Your task to perform on an android device: turn off location history Image 0: 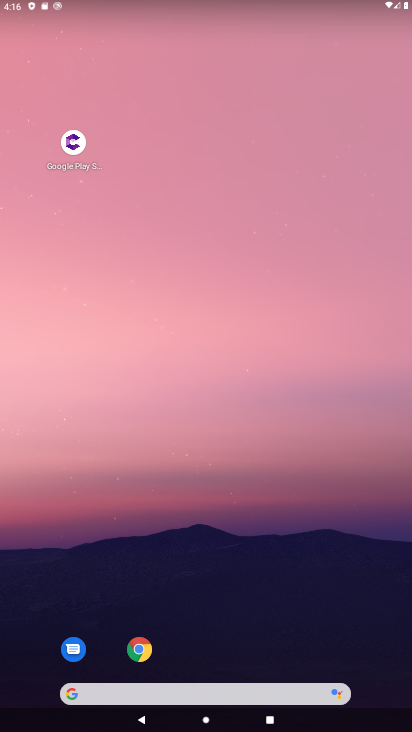
Step 0: drag from (219, 694) to (275, 157)
Your task to perform on an android device: turn off location history Image 1: 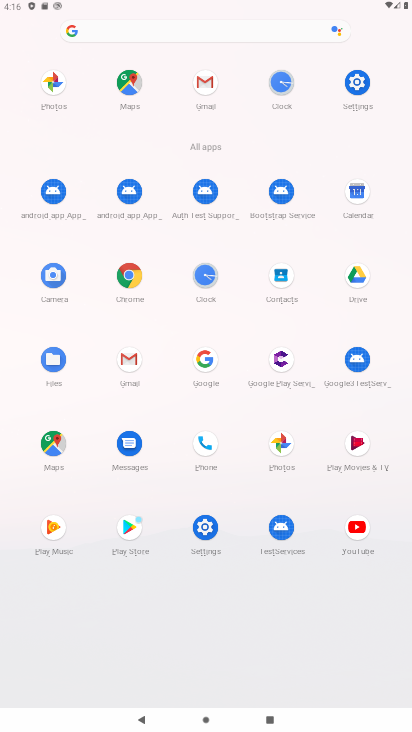
Step 1: click (354, 95)
Your task to perform on an android device: turn off location history Image 2: 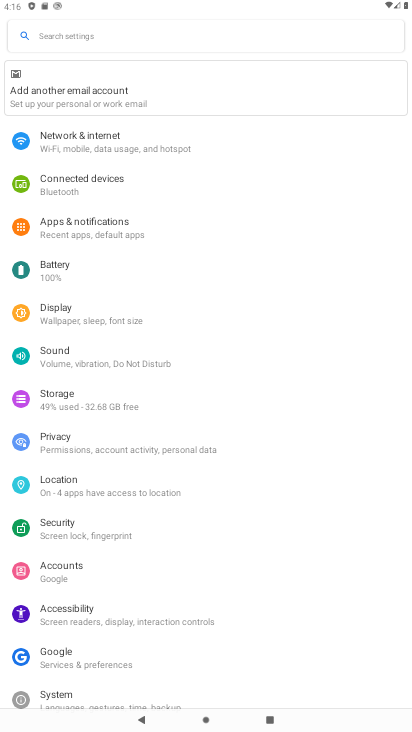
Step 2: click (87, 484)
Your task to perform on an android device: turn off location history Image 3: 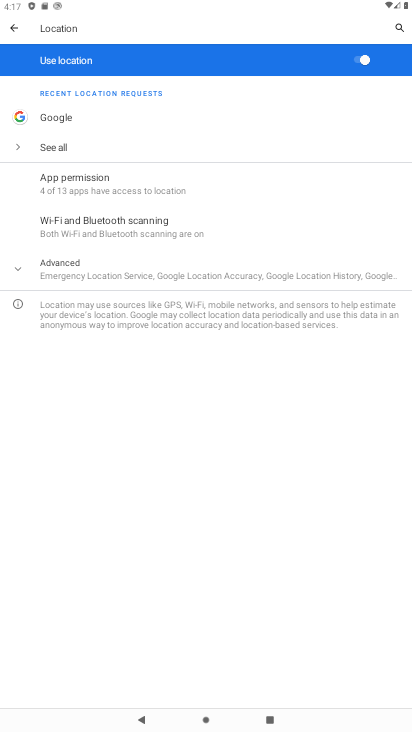
Step 3: click (360, 53)
Your task to perform on an android device: turn off location history Image 4: 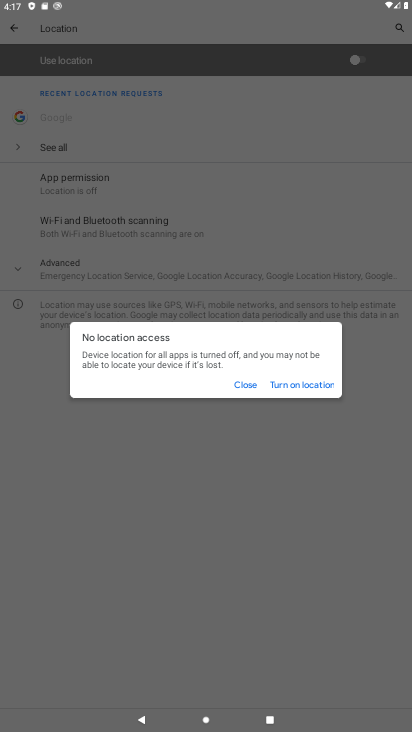
Step 4: task complete